Your task to perform on an android device: check google app version Image 0: 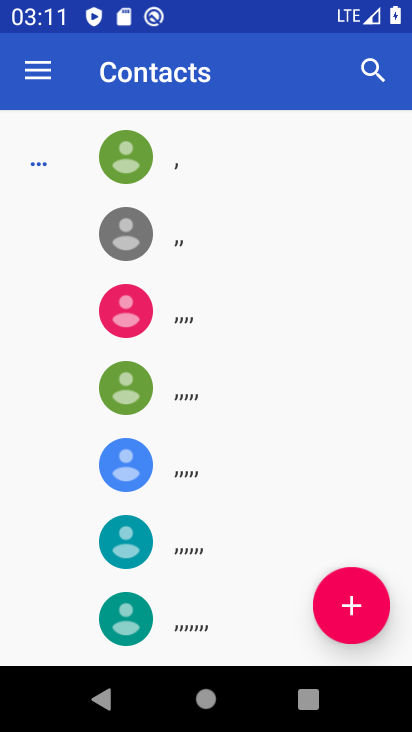
Step 0: press home button
Your task to perform on an android device: check google app version Image 1: 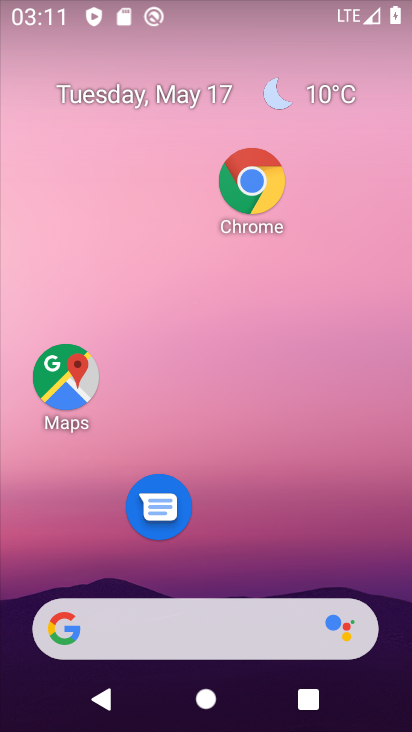
Step 1: click (192, 622)
Your task to perform on an android device: check google app version Image 2: 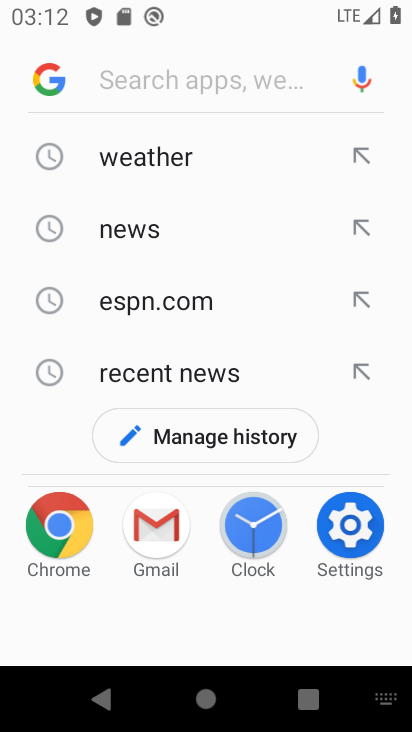
Step 2: click (51, 67)
Your task to perform on an android device: check google app version Image 3: 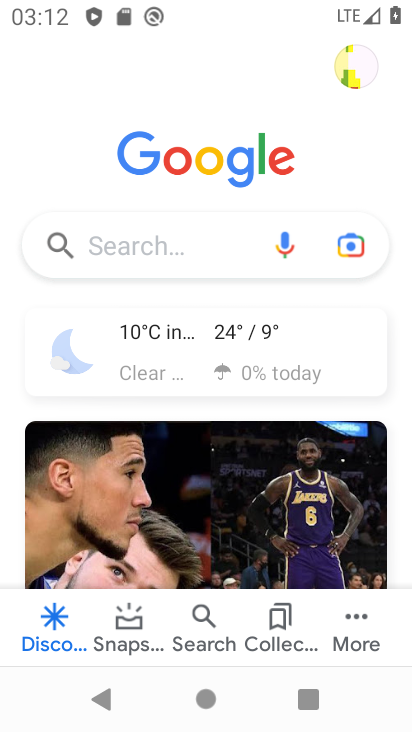
Step 3: click (355, 620)
Your task to perform on an android device: check google app version Image 4: 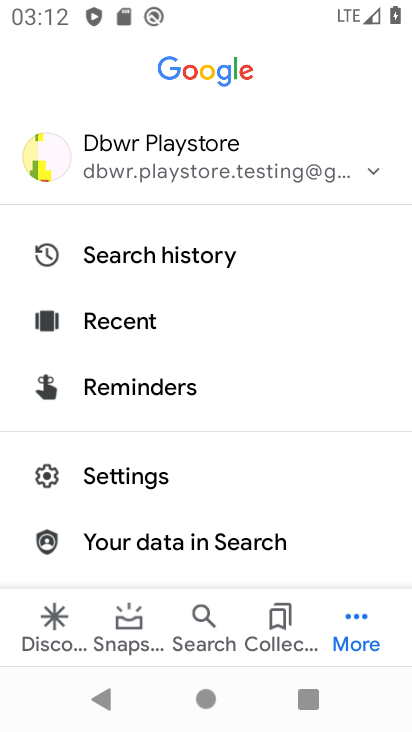
Step 4: click (150, 490)
Your task to perform on an android device: check google app version Image 5: 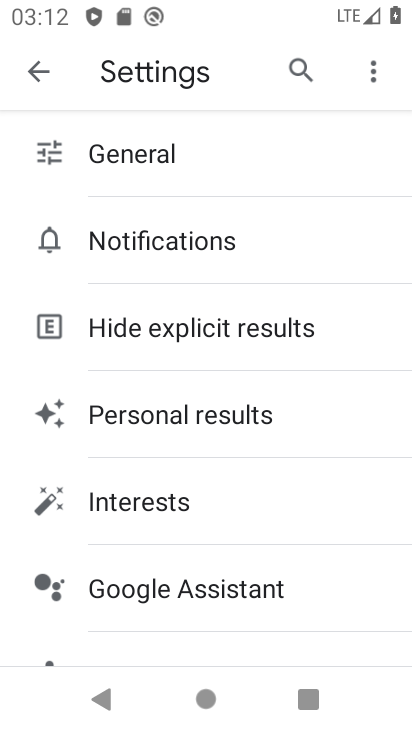
Step 5: click (149, 174)
Your task to perform on an android device: check google app version Image 6: 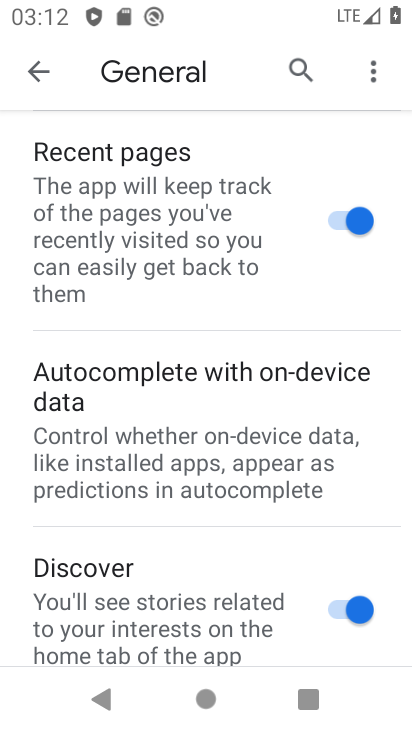
Step 6: click (51, 91)
Your task to perform on an android device: check google app version Image 7: 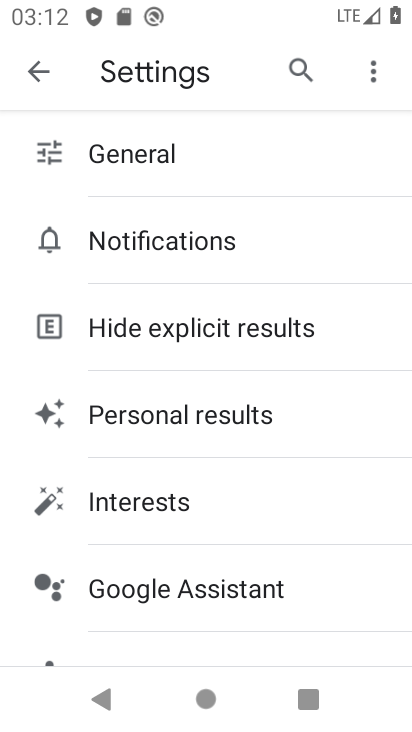
Step 7: drag from (125, 510) to (186, 32)
Your task to perform on an android device: check google app version Image 8: 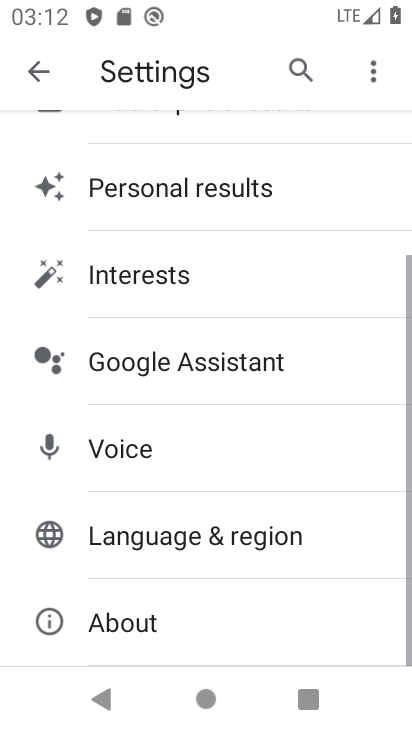
Step 8: click (95, 608)
Your task to perform on an android device: check google app version Image 9: 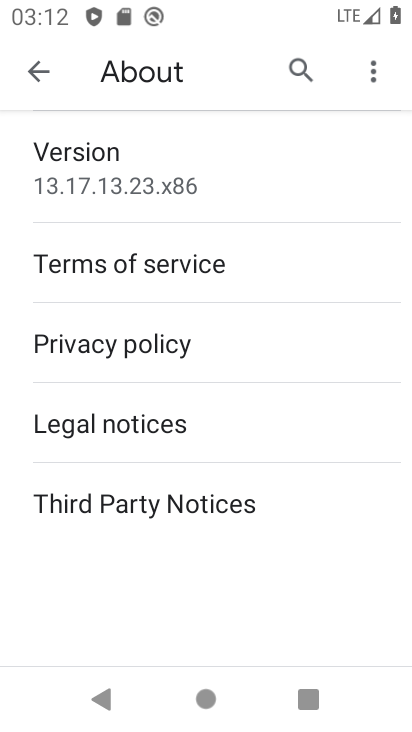
Step 9: task complete